Your task to perform on an android device: change the clock display to digital Image 0: 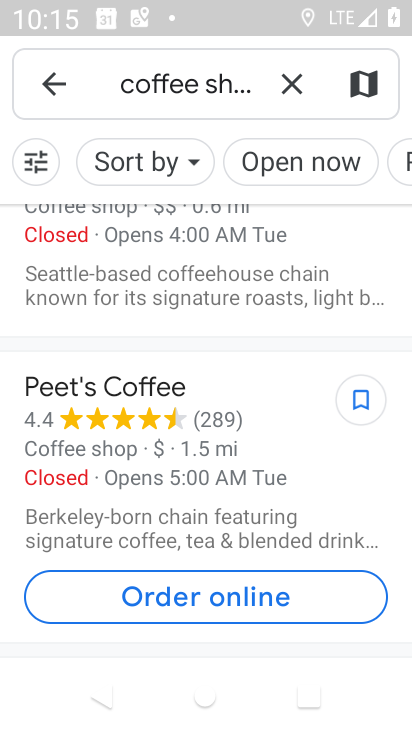
Step 0: press back button
Your task to perform on an android device: change the clock display to digital Image 1: 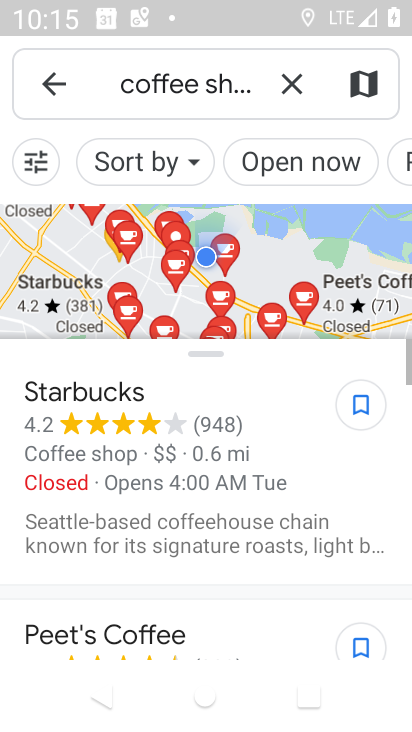
Step 1: press back button
Your task to perform on an android device: change the clock display to digital Image 2: 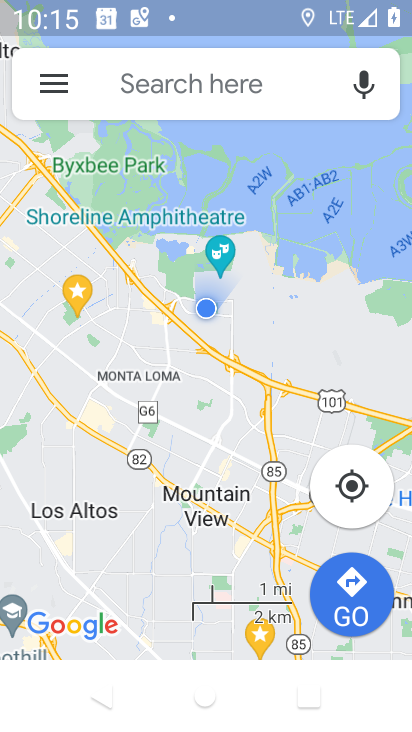
Step 2: press home button
Your task to perform on an android device: change the clock display to digital Image 3: 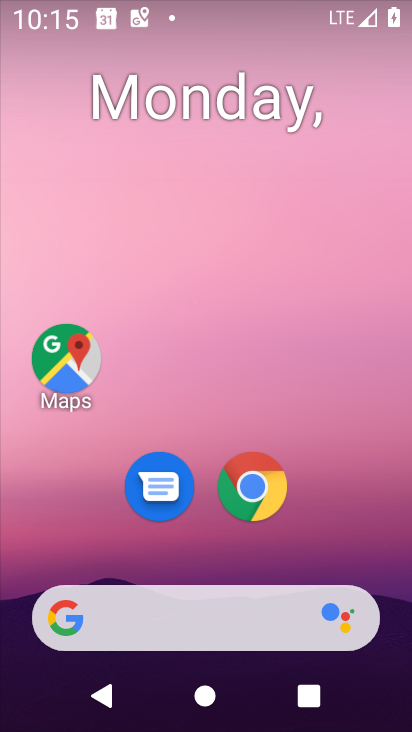
Step 3: drag from (363, 523) to (292, 38)
Your task to perform on an android device: change the clock display to digital Image 4: 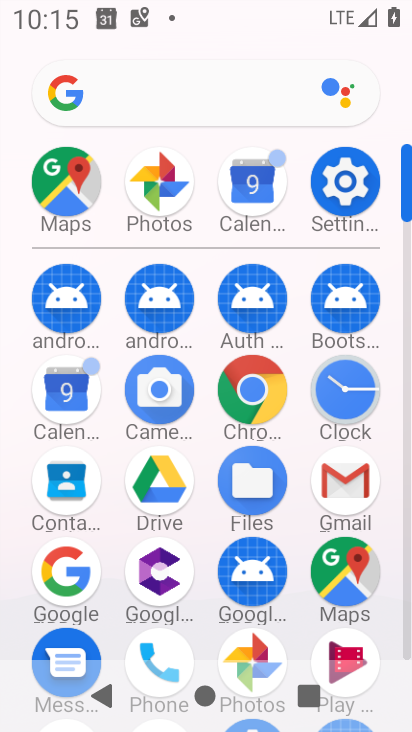
Step 4: click (347, 387)
Your task to perform on an android device: change the clock display to digital Image 5: 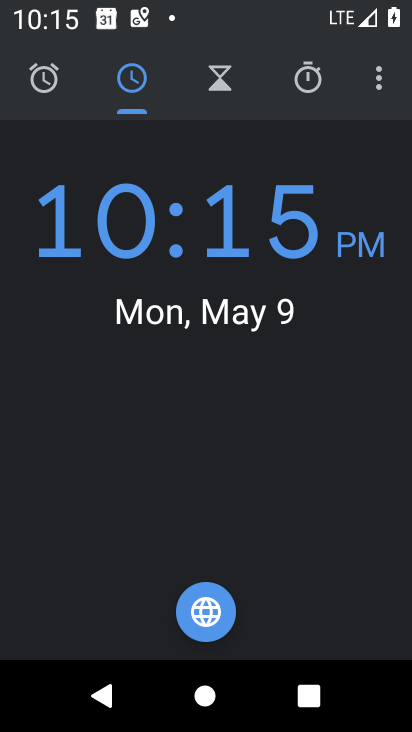
Step 5: task complete